Your task to perform on an android device: find snoozed emails in the gmail app Image 0: 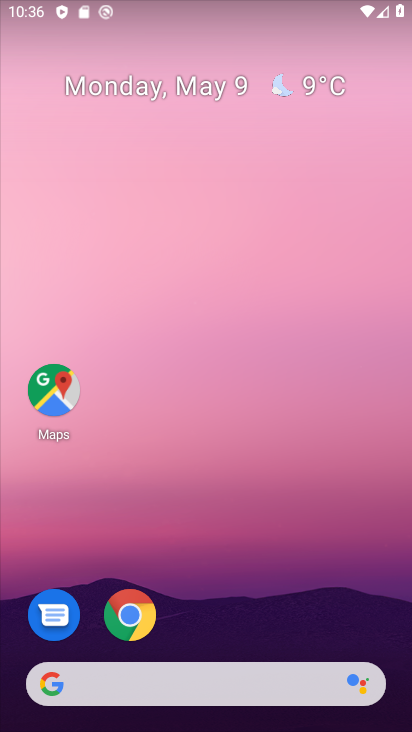
Step 0: drag from (195, 599) to (232, 126)
Your task to perform on an android device: find snoozed emails in the gmail app Image 1: 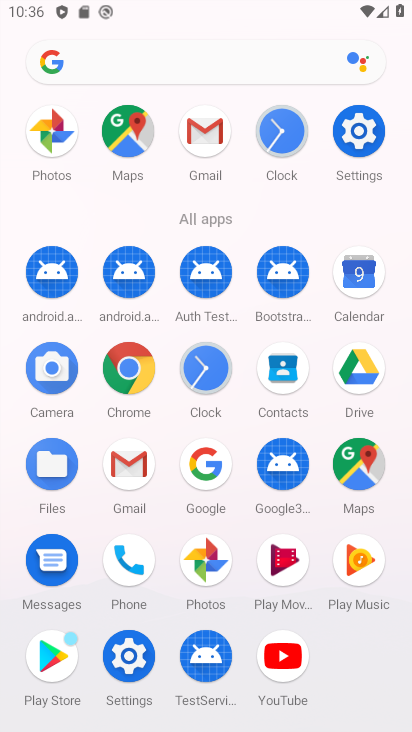
Step 1: click (133, 467)
Your task to perform on an android device: find snoozed emails in the gmail app Image 2: 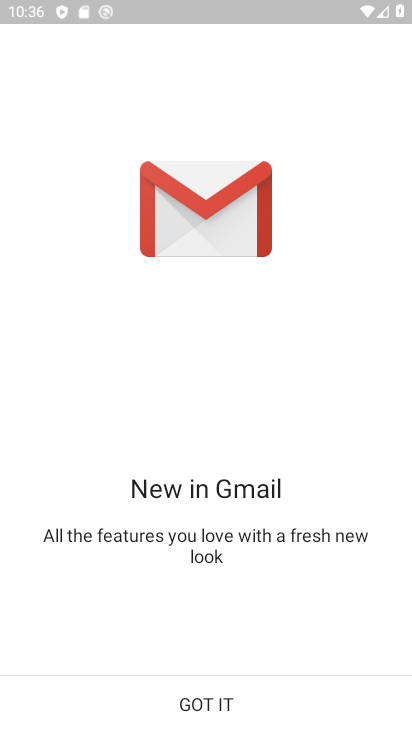
Step 2: click (213, 695)
Your task to perform on an android device: find snoozed emails in the gmail app Image 3: 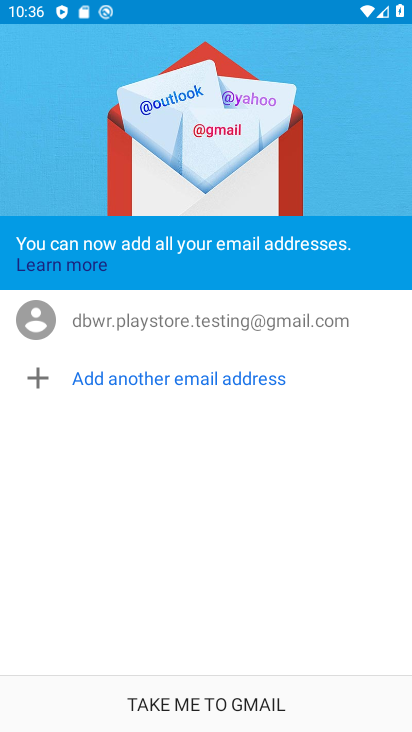
Step 3: click (213, 695)
Your task to perform on an android device: find snoozed emails in the gmail app Image 4: 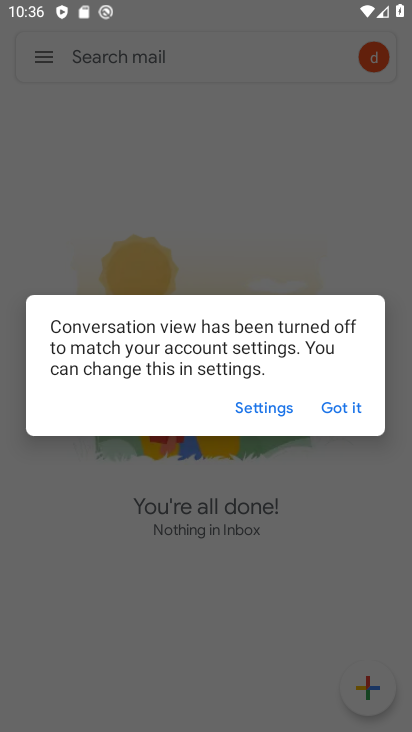
Step 4: click (336, 408)
Your task to perform on an android device: find snoozed emails in the gmail app Image 5: 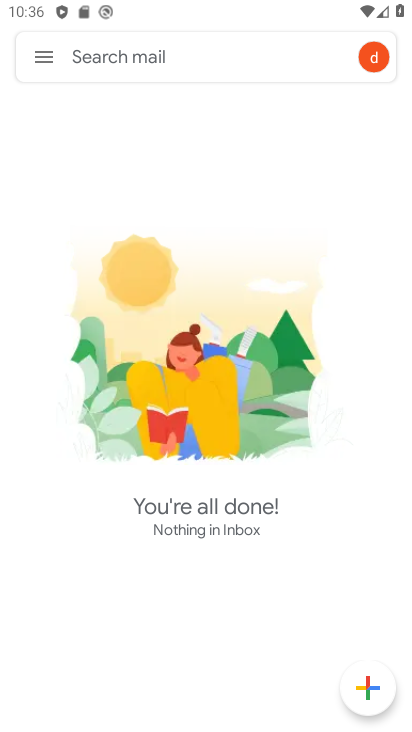
Step 5: click (41, 53)
Your task to perform on an android device: find snoozed emails in the gmail app Image 6: 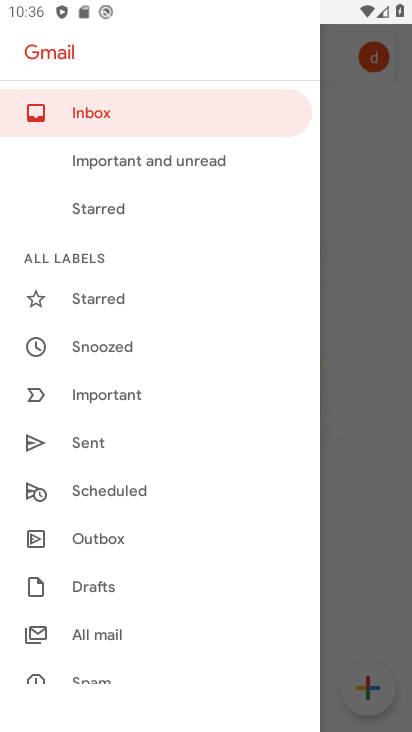
Step 6: click (130, 351)
Your task to perform on an android device: find snoozed emails in the gmail app Image 7: 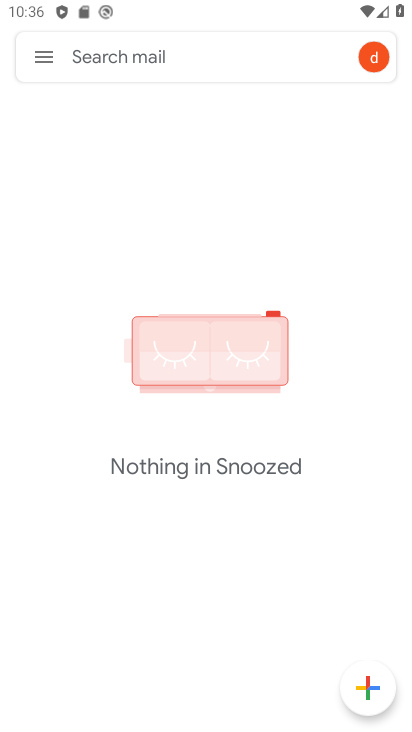
Step 7: task complete